Your task to perform on an android device: open the mobile data screen to see how much data has been used Image 0: 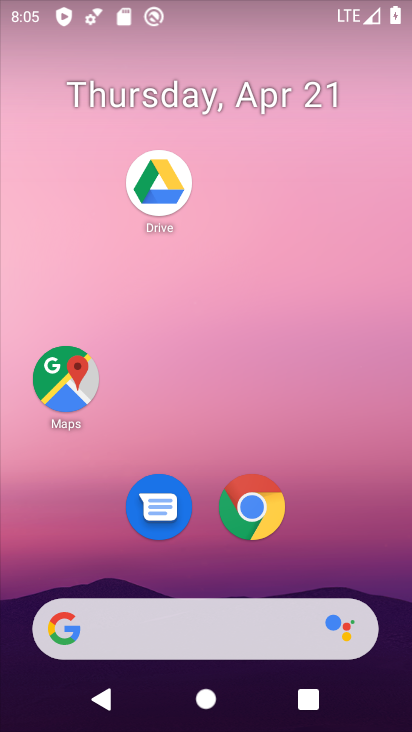
Step 0: drag from (368, 555) to (374, 82)
Your task to perform on an android device: open the mobile data screen to see how much data has been used Image 1: 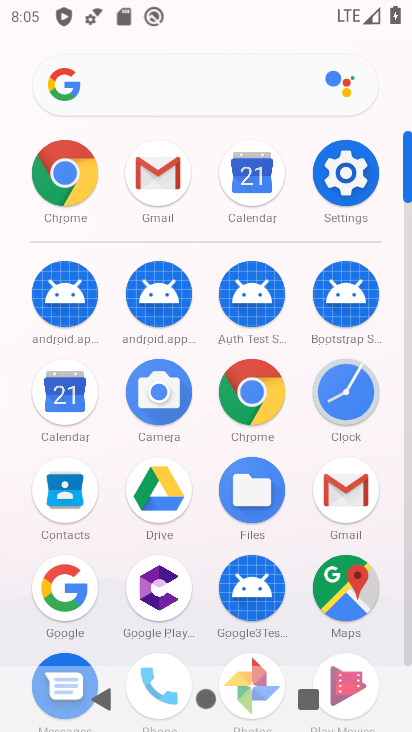
Step 1: click (360, 196)
Your task to perform on an android device: open the mobile data screen to see how much data has been used Image 2: 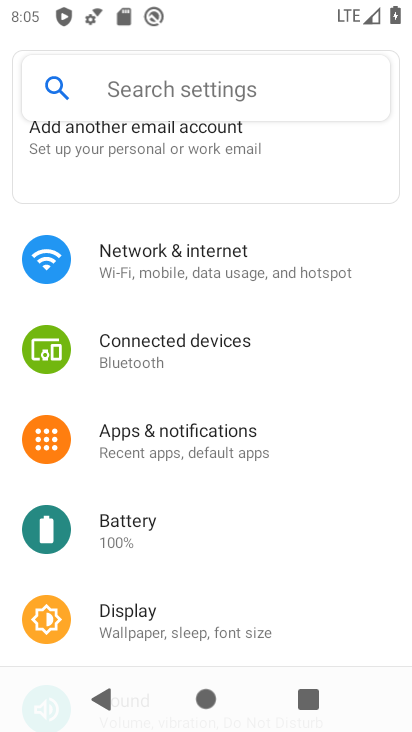
Step 2: drag from (352, 568) to (352, 449)
Your task to perform on an android device: open the mobile data screen to see how much data has been used Image 3: 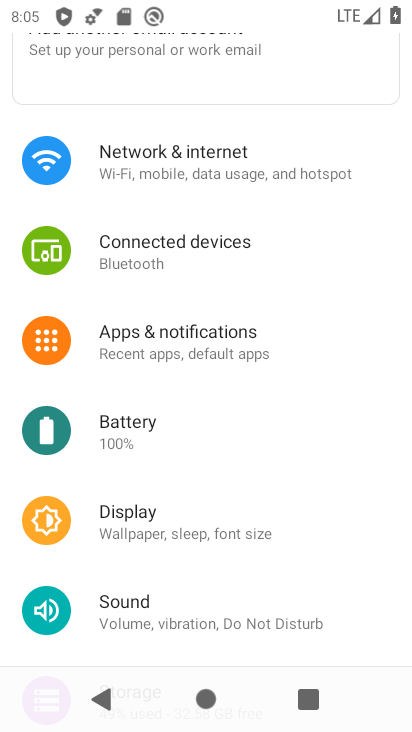
Step 3: drag from (350, 576) to (360, 436)
Your task to perform on an android device: open the mobile data screen to see how much data has been used Image 4: 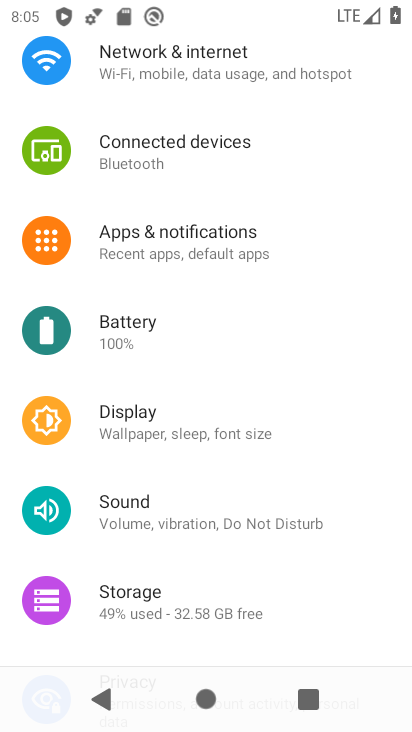
Step 4: drag from (358, 599) to (367, 448)
Your task to perform on an android device: open the mobile data screen to see how much data has been used Image 5: 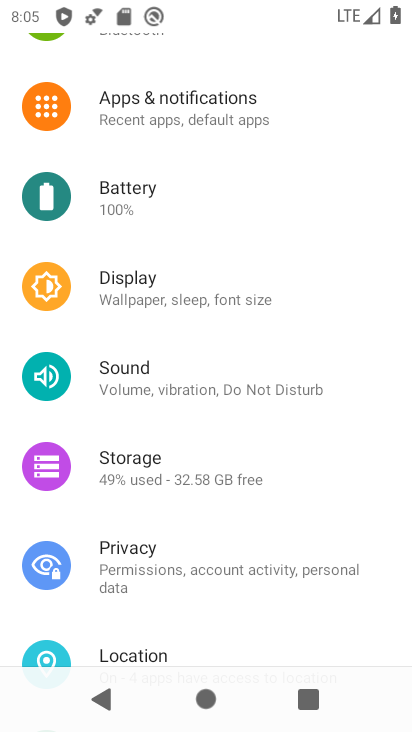
Step 5: drag from (367, 617) to (370, 435)
Your task to perform on an android device: open the mobile data screen to see how much data has been used Image 6: 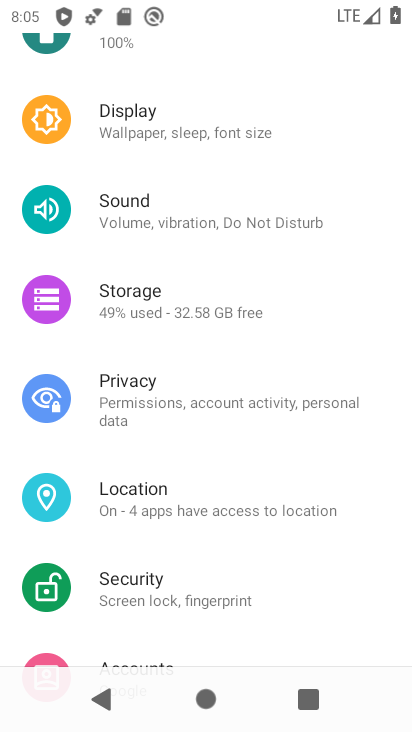
Step 6: drag from (366, 584) to (369, 389)
Your task to perform on an android device: open the mobile data screen to see how much data has been used Image 7: 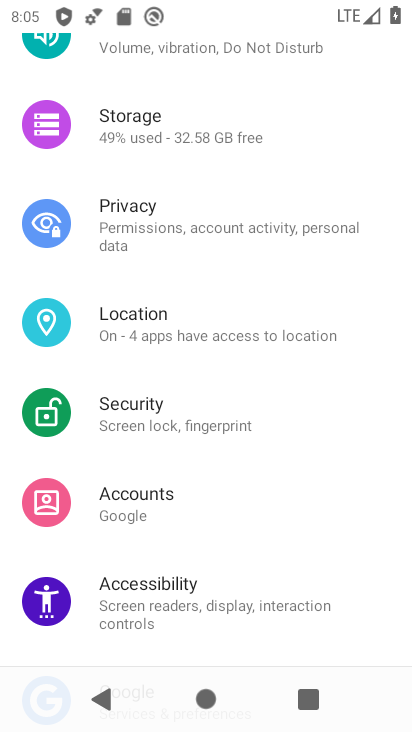
Step 7: drag from (374, 314) to (374, 477)
Your task to perform on an android device: open the mobile data screen to see how much data has been used Image 8: 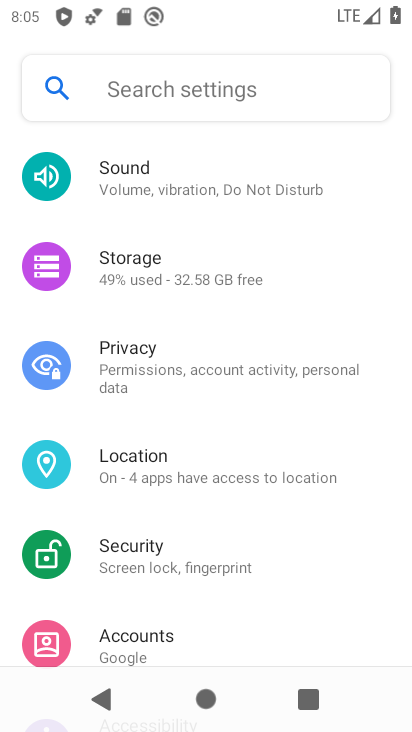
Step 8: drag from (383, 318) to (375, 472)
Your task to perform on an android device: open the mobile data screen to see how much data has been used Image 9: 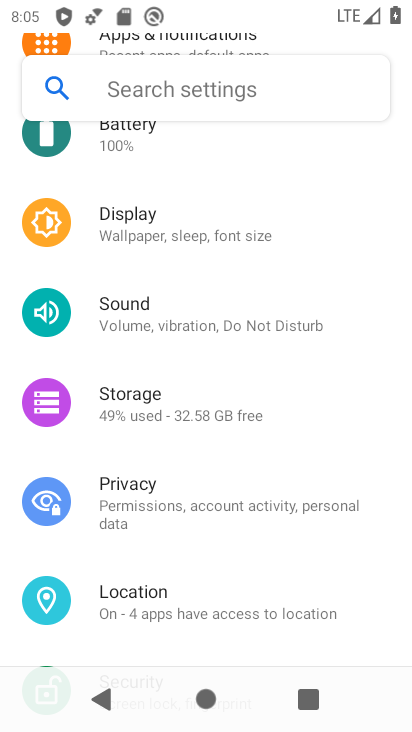
Step 9: drag from (386, 324) to (374, 457)
Your task to perform on an android device: open the mobile data screen to see how much data has been used Image 10: 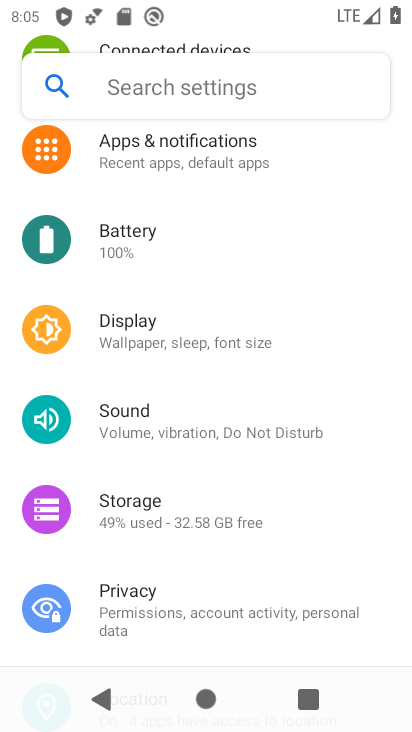
Step 10: drag from (373, 332) to (369, 458)
Your task to perform on an android device: open the mobile data screen to see how much data has been used Image 11: 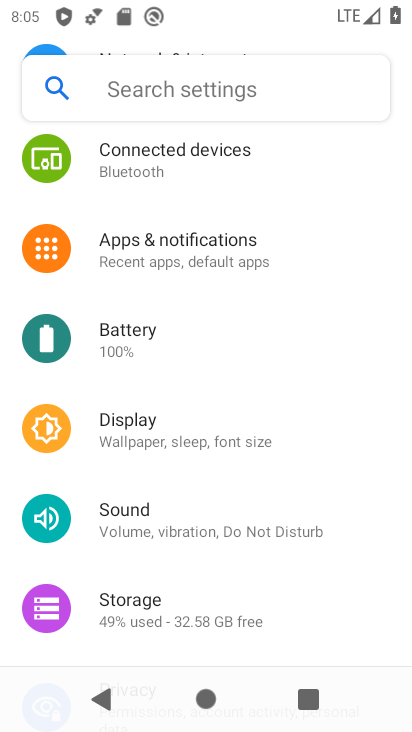
Step 11: drag from (377, 304) to (367, 452)
Your task to perform on an android device: open the mobile data screen to see how much data has been used Image 12: 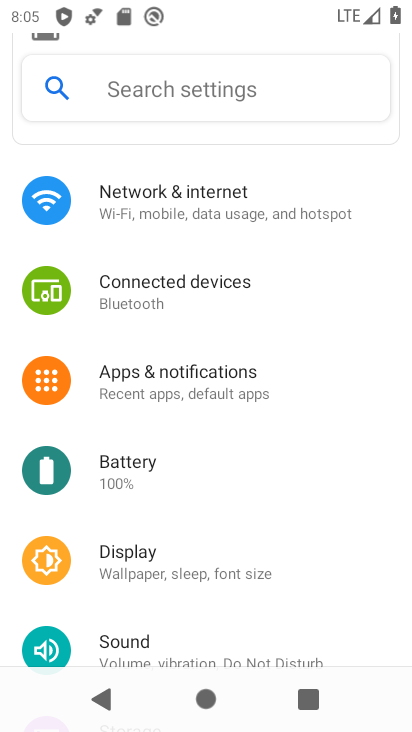
Step 12: drag from (367, 311) to (363, 532)
Your task to perform on an android device: open the mobile data screen to see how much data has been used Image 13: 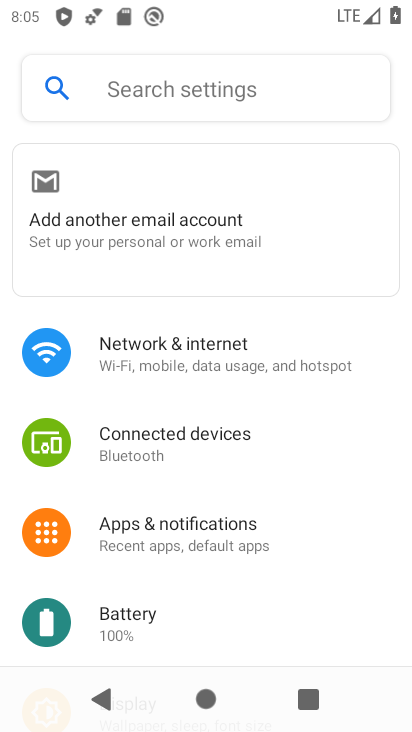
Step 13: click (300, 357)
Your task to perform on an android device: open the mobile data screen to see how much data has been used Image 14: 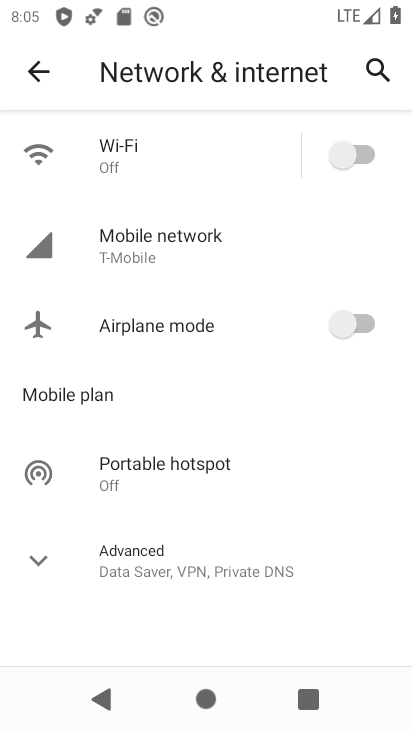
Step 14: click (191, 239)
Your task to perform on an android device: open the mobile data screen to see how much data has been used Image 15: 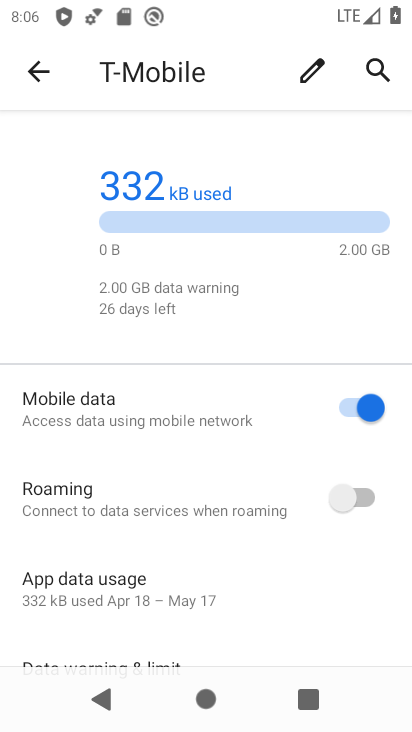
Step 15: drag from (273, 581) to (264, 421)
Your task to perform on an android device: open the mobile data screen to see how much data has been used Image 16: 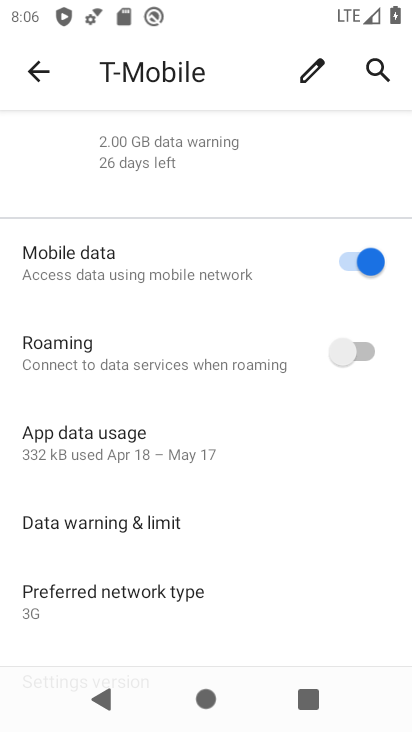
Step 16: drag from (269, 537) to (269, 444)
Your task to perform on an android device: open the mobile data screen to see how much data has been used Image 17: 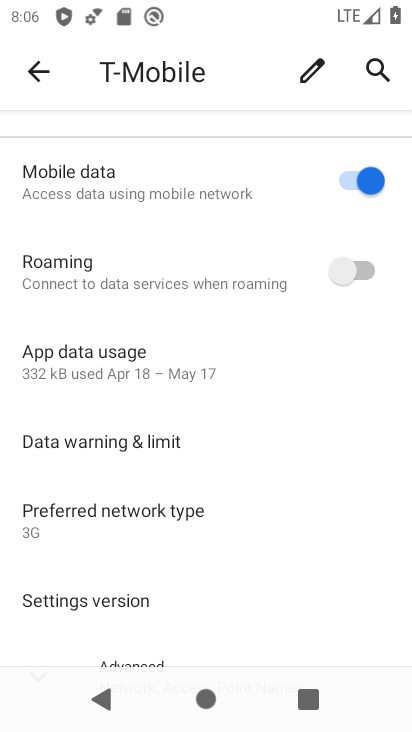
Step 17: click (185, 372)
Your task to perform on an android device: open the mobile data screen to see how much data has been used Image 18: 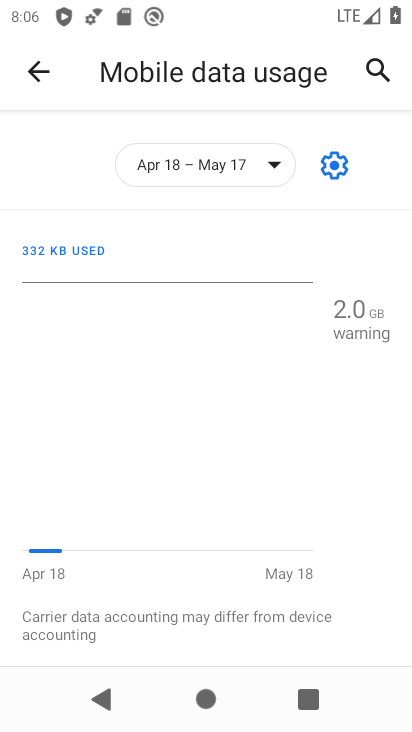
Step 18: task complete